Your task to perform on an android device: Open Reddit.com Image 0: 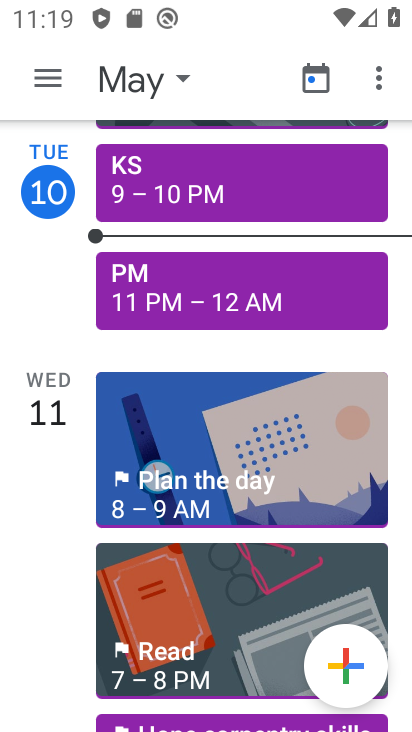
Step 0: press home button
Your task to perform on an android device: Open Reddit.com Image 1: 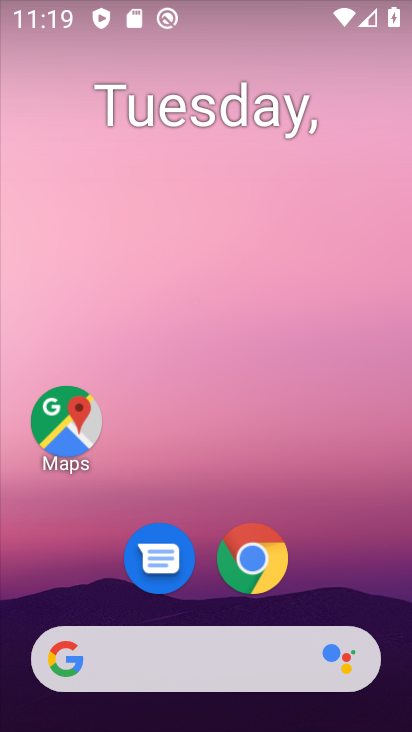
Step 1: click (241, 561)
Your task to perform on an android device: Open Reddit.com Image 2: 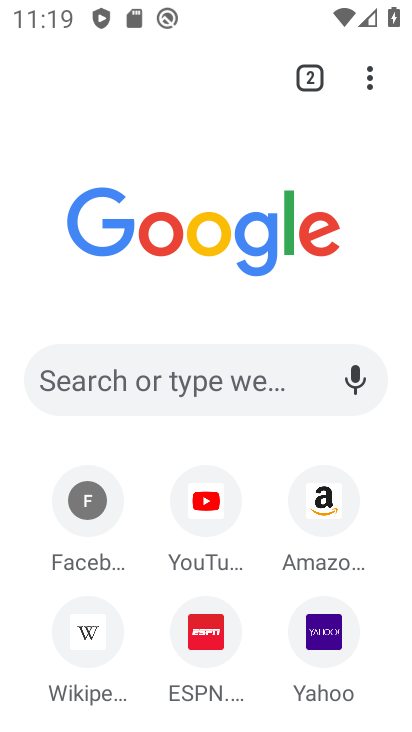
Step 2: click (192, 385)
Your task to perform on an android device: Open Reddit.com Image 3: 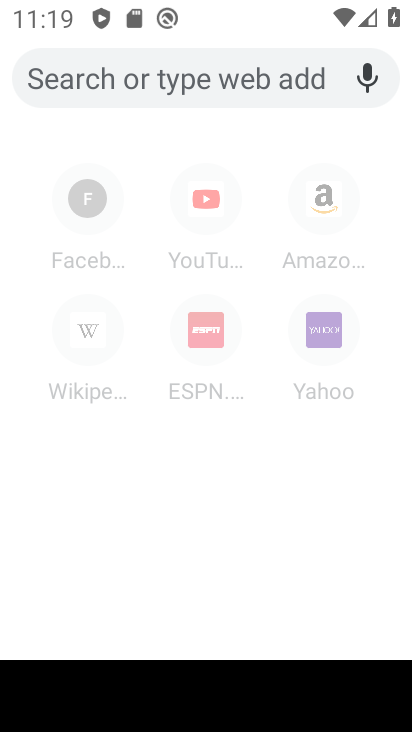
Step 3: type "Reddit.com"
Your task to perform on an android device: Open Reddit.com Image 4: 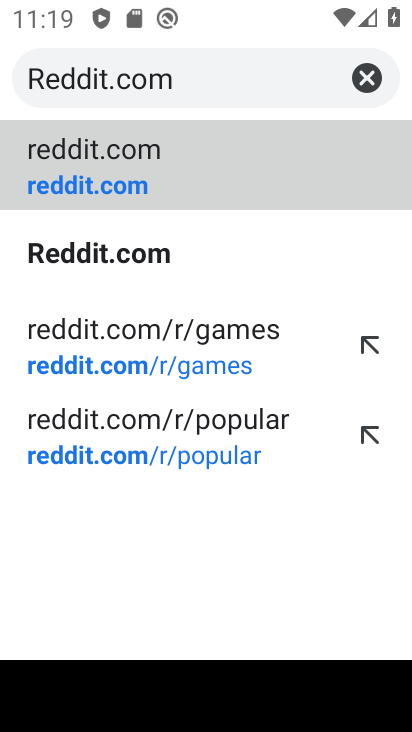
Step 4: click (149, 159)
Your task to perform on an android device: Open Reddit.com Image 5: 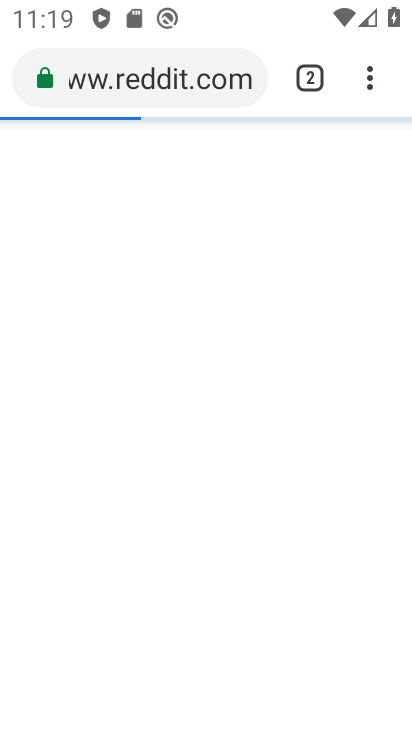
Step 5: task complete